Your task to perform on an android device: change your default location settings in chrome Image 0: 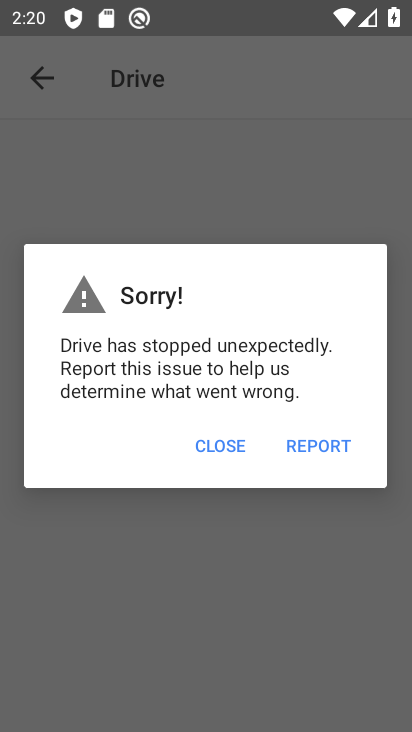
Step 0: press home button
Your task to perform on an android device: change your default location settings in chrome Image 1: 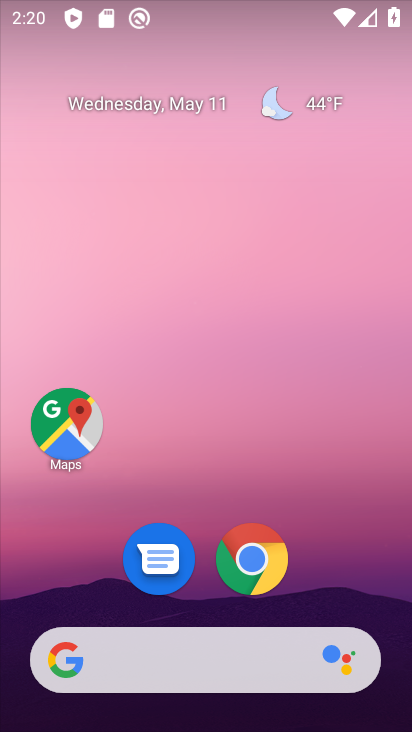
Step 1: drag from (299, 492) to (169, 60)
Your task to perform on an android device: change your default location settings in chrome Image 2: 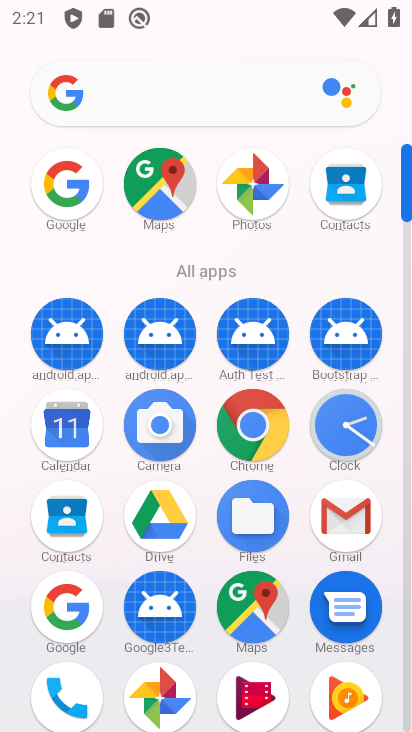
Step 2: click (238, 418)
Your task to perform on an android device: change your default location settings in chrome Image 3: 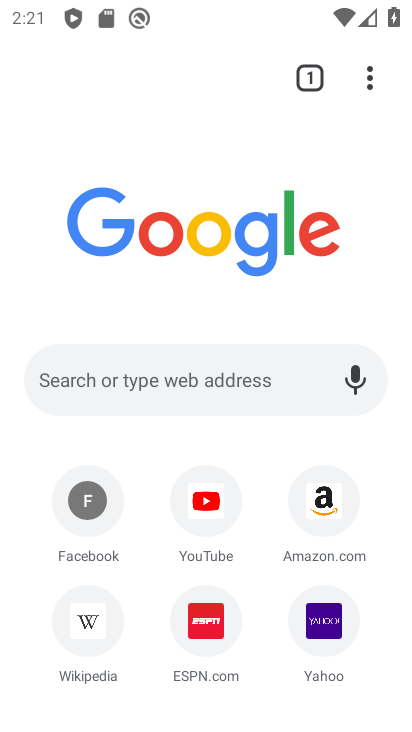
Step 3: click (370, 70)
Your task to perform on an android device: change your default location settings in chrome Image 4: 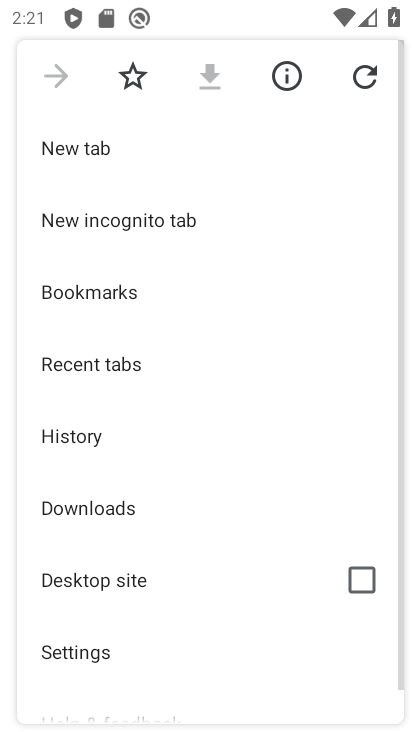
Step 4: drag from (188, 649) to (150, 374)
Your task to perform on an android device: change your default location settings in chrome Image 5: 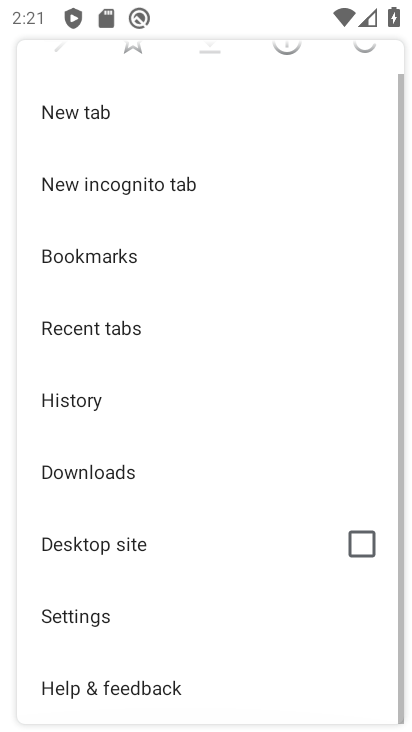
Step 5: click (107, 614)
Your task to perform on an android device: change your default location settings in chrome Image 6: 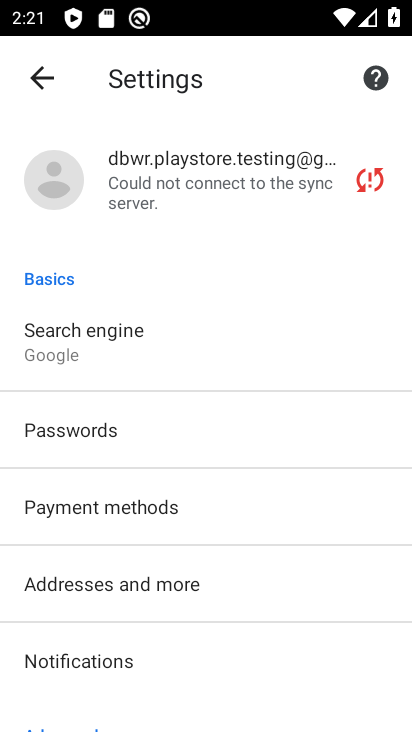
Step 6: drag from (190, 600) to (188, 133)
Your task to perform on an android device: change your default location settings in chrome Image 7: 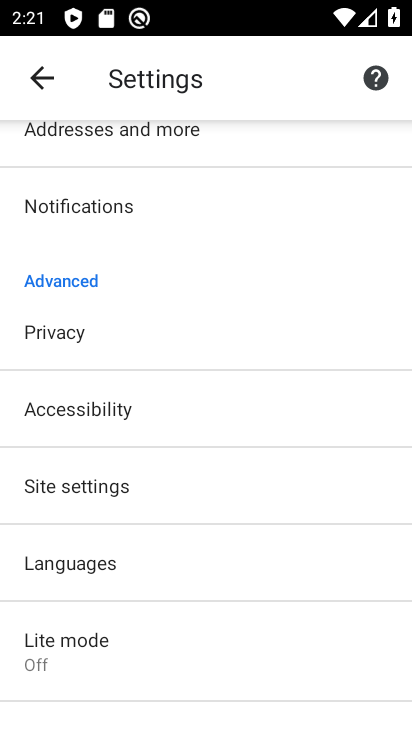
Step 7: click (145, 492)
Your task to perform on an android device: change your default location settings in chrome Image 8: 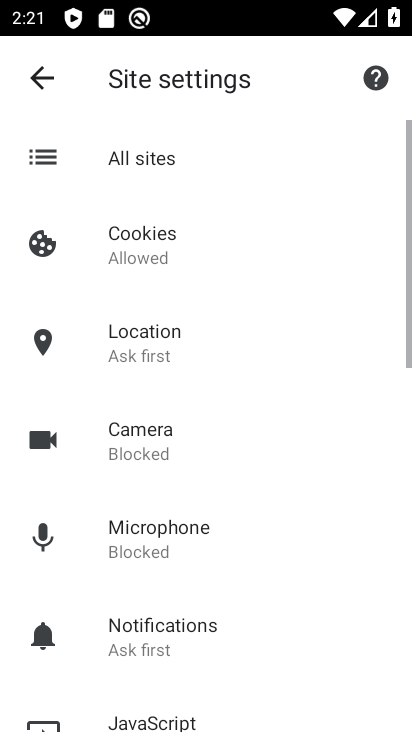
Step 8: click (174, 329)
Your task to perform on an android device: change your default location settings in chrome Image 9: 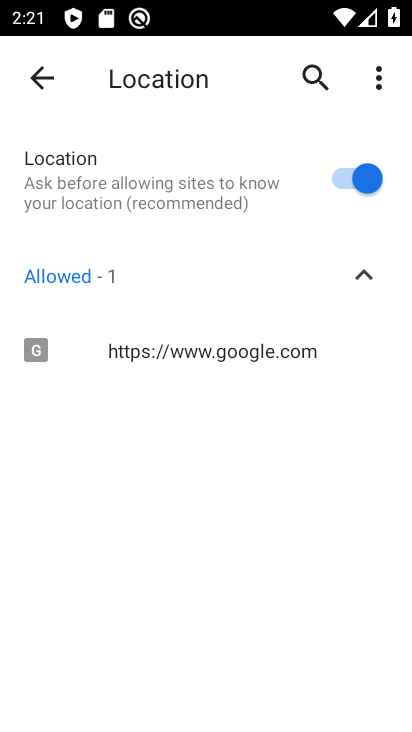
Step 9: click (348, 196)
Your task to perform on an android device: change your default location settings in chrome Image 10: 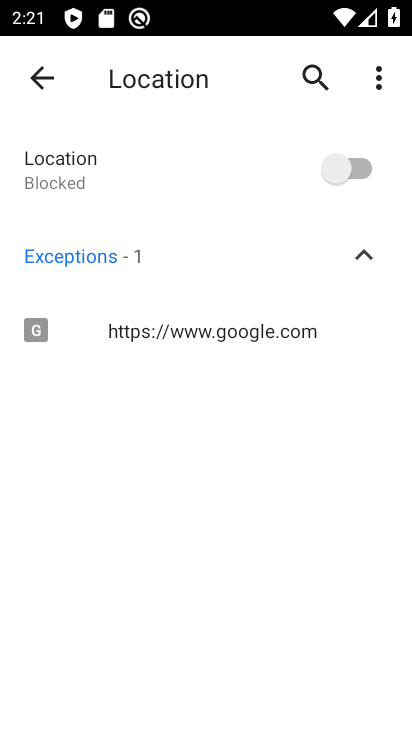
Step 10: task complete